Your task to perform on an android device: change the clock display to analog Image 0: 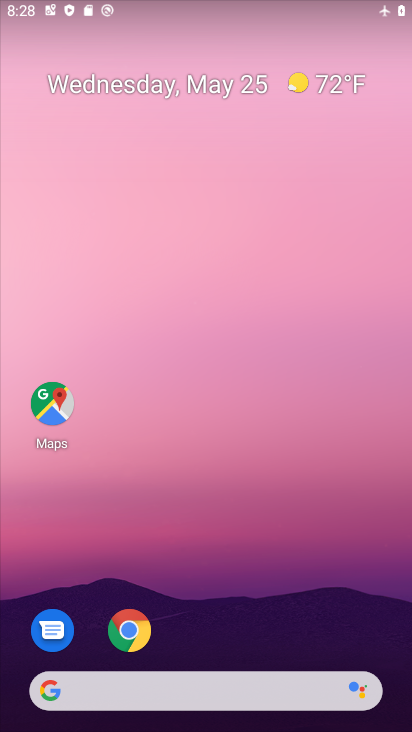
Step 0: drag from (218, 648) to (243, 254)
Your task to perform on an android device: change the clock display to analog Image 1: 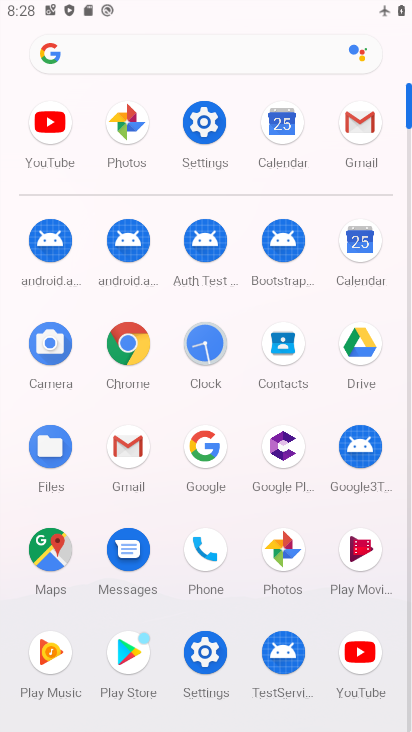
Step 1: click (202, 342)
Your task to perform on an android device: change the clock display to analog Image 2: 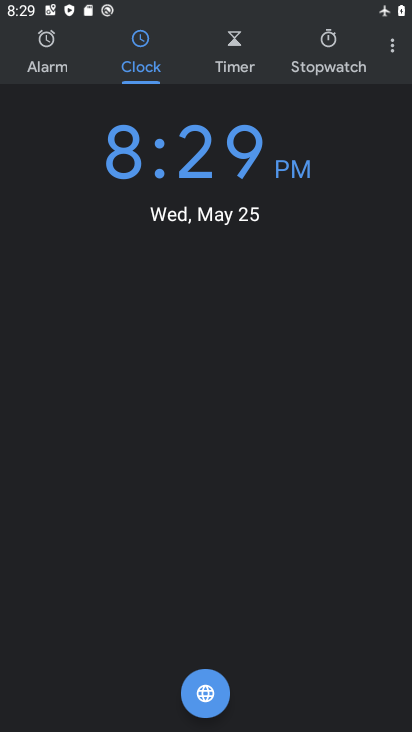
Step 2: click (395, 37)
Your task to perform on an android device: change the clock display to analog Image 3: 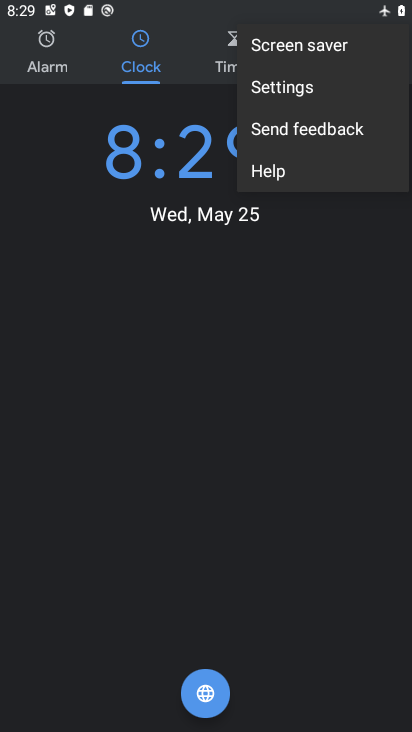
Step 3: click (306, 92)
Your task to perform on an android device: change the clock display to analog Image 4: 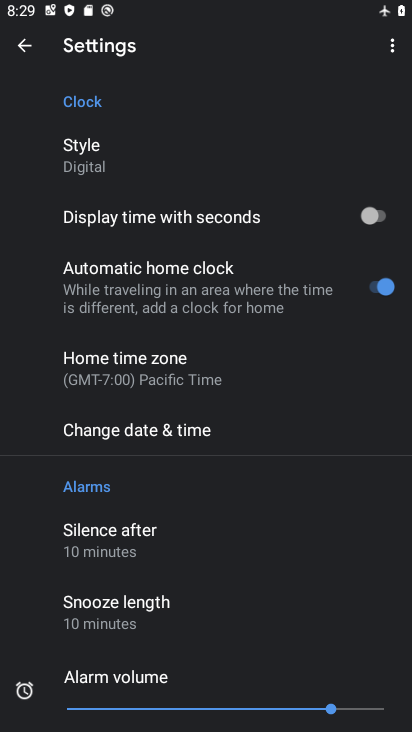
Step 4: click (124, 149)
Your task to perform on an android device: change the clock display to analog Image 5: 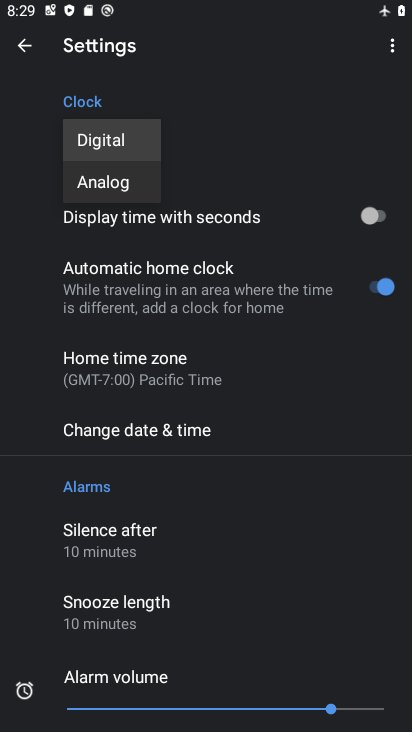
Step 5: click (119, 194)
Your task to perform on an android device: change the clock display to analog Image 6: 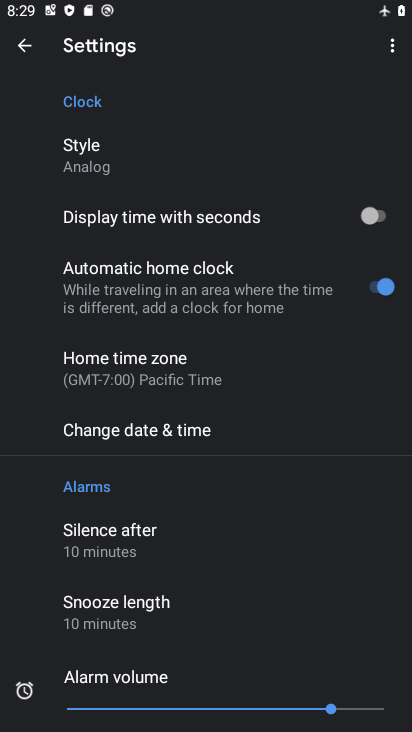
Step 6: task complete